Your task to perform on an android device: Is it going to rain tomorrow? Image 0: 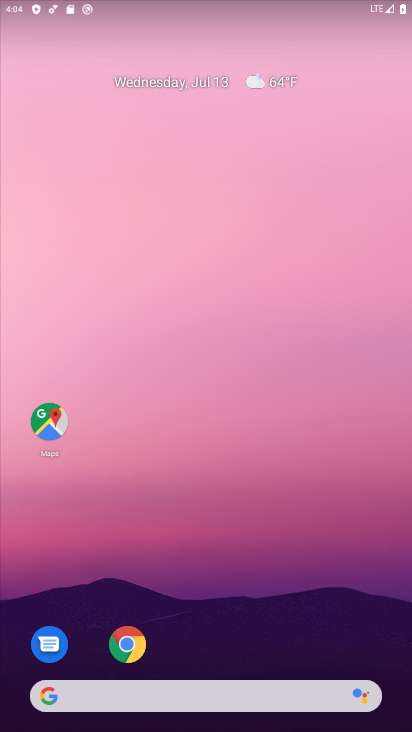
Step 0: drag from (253, 617) to (345, 69)
Your task to perform on an android device: Is it going to rain tomorrow? Image 1: 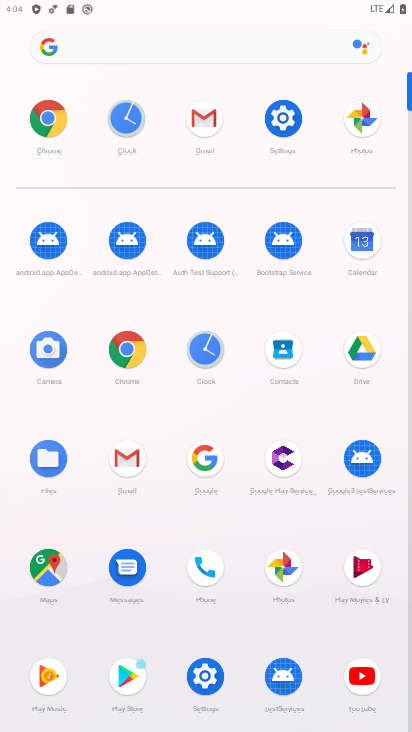
Step 1: click (152, 48)
Your task to perform on an android device: Is it going to rain tomorrow? Image 2: 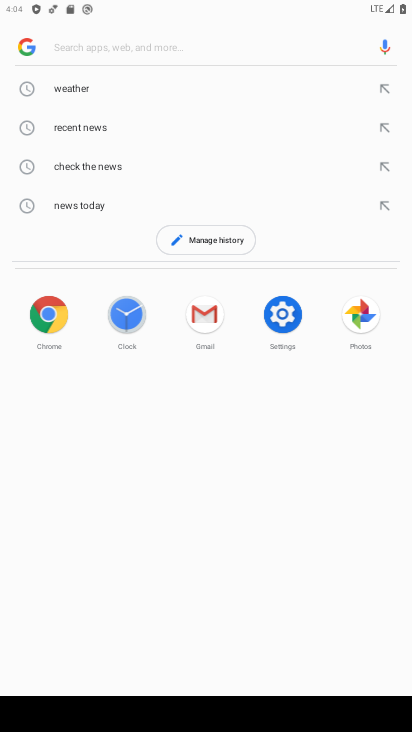
Step 2: click (78, 88)
Your task to perform on an android device: Is it going to rain tomorrow? Image 3: 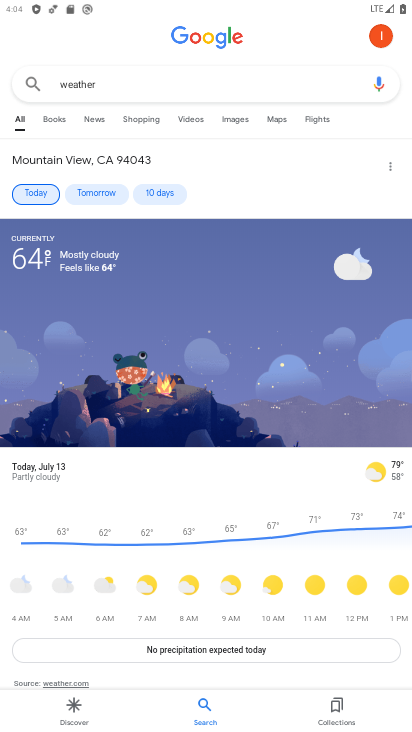
Step 3: click (101, 199)
Your task to perform on an android device: Is it going to rain tomorrow? Image 4: 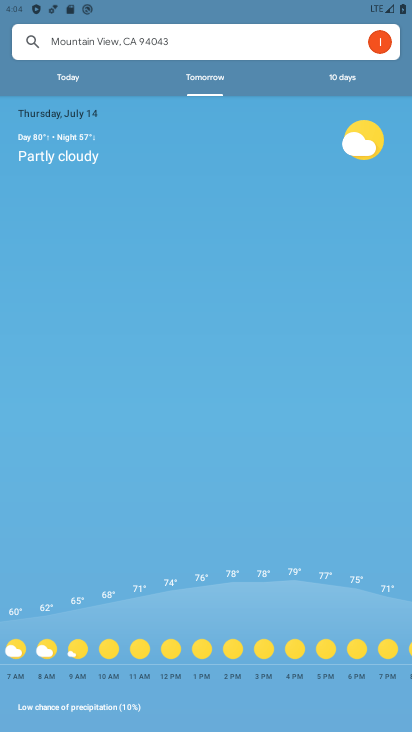
Step 4: task complete